Your task to perform on an android device: turn vacation reply on in the gmail app Image 0: 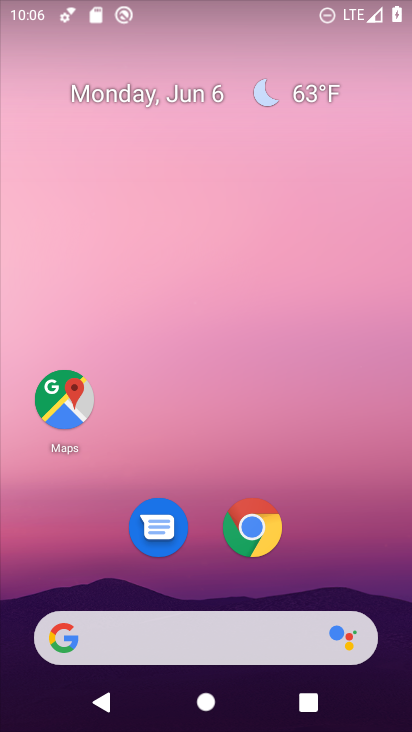
Step 0: drag from (374, 565) to (381, 151)
Your task to perform on an android device: turn vacation reply on in the gmail app Image 1: 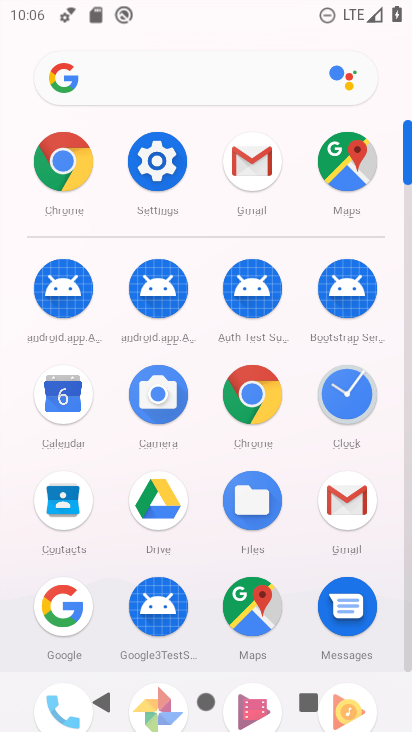
Step 1: click (365, 506)
Your task to perform on an android device: turn vacation reply on in the gmail app Image 2: 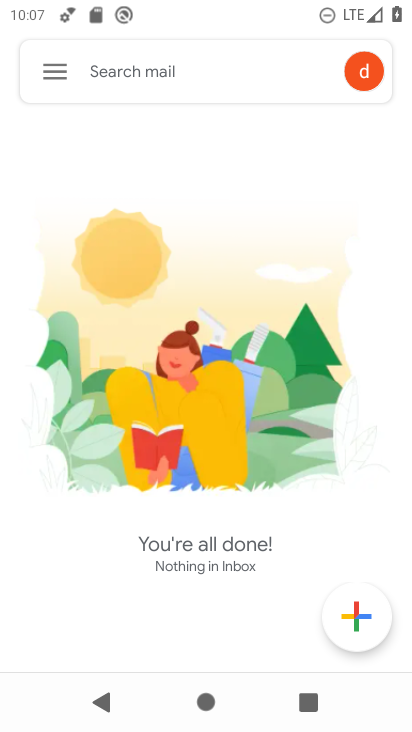
Step 2: click (62, 83)
Your task to perform on an android device: turn vacation reply on in the gmail app Image 3: 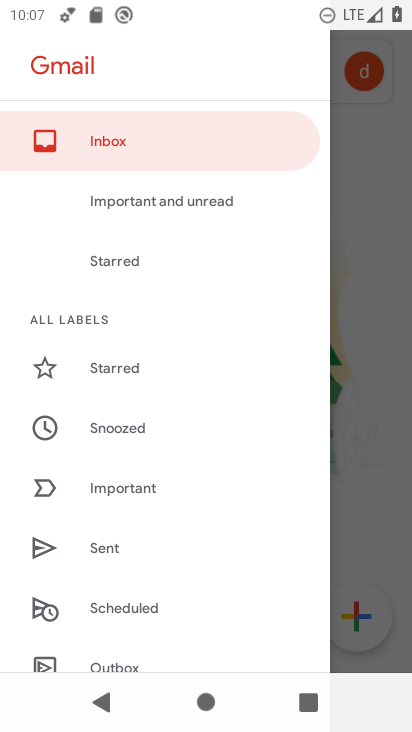
Step 3: drag from (282, 360) to (285, 258)
Your task to perform on an android device: turn vacation reply on in the gmail app Image 4: 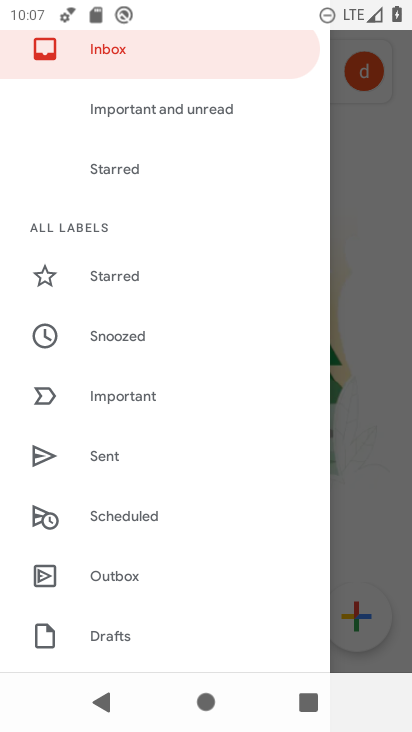
Step 4: drag from (277, 420) to (245, 299)
Your task to perform on an android device: turn vacation reply on in the gmail app Image 5: 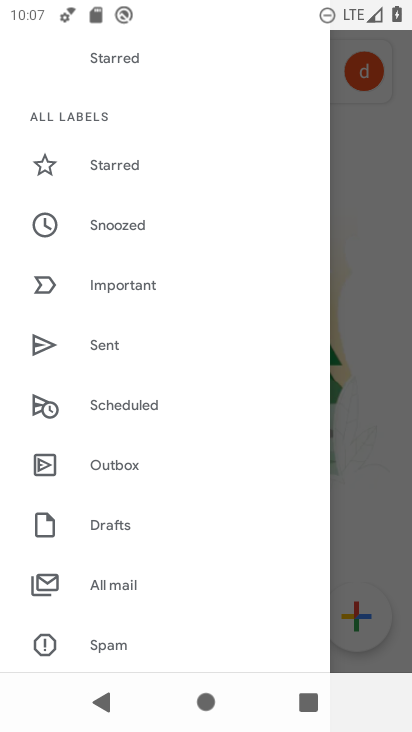
Step 5: drag from (254, 429) to (264, 317)
Your task to perform on an android device: turn vacation reply on in the gmail app Image 6: 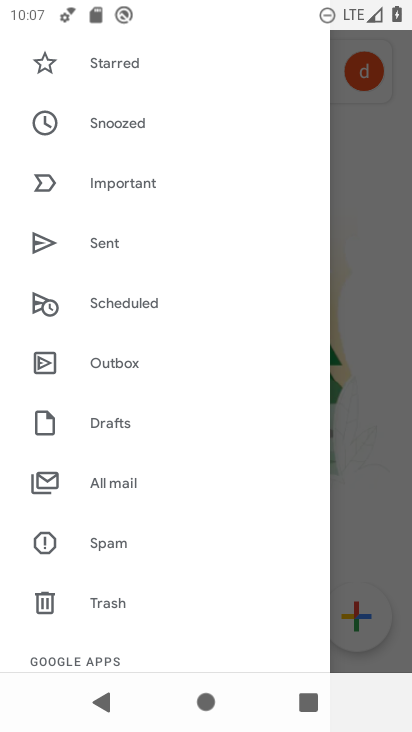
Step 6: drag from (265, 466) to (261, 337)
Your task to perform on an android device: turn vacation reply on in the gmail app Image 7: 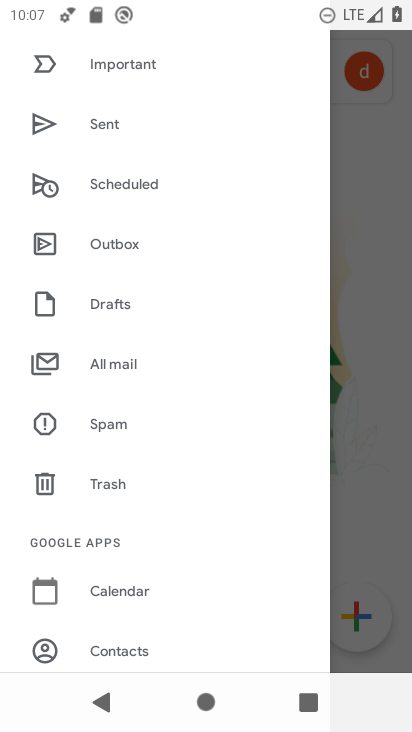
Step 7: drag from (245, 428) to (237, 242)
Your task to perform on an android device: turn vacation reply on in the gmail app Image 8: 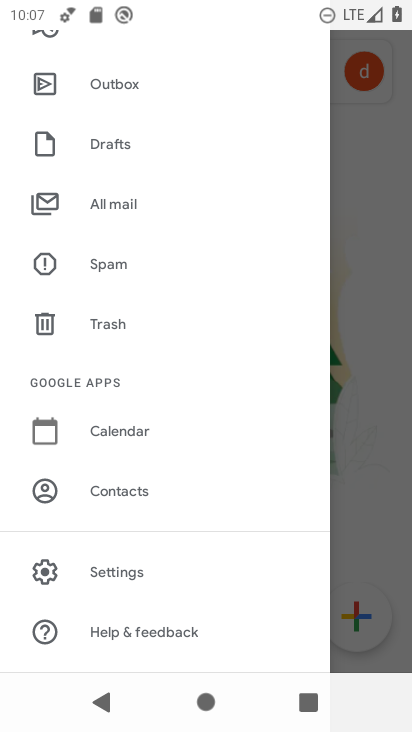
Step 8: click (158, 578)
Your task to perform on an android device: turn vacation reply on in the gmail app Image 9: 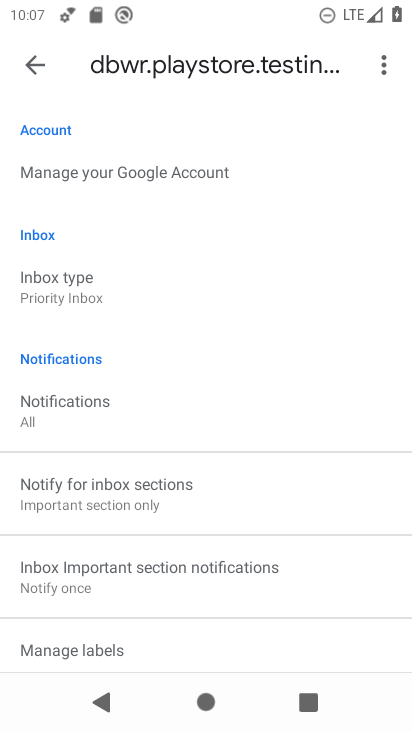
Step 9: drag from (313, 461) to (329, 227)
Your task to perform on an android device: turn vacation reply on in the gmail app Image 10: 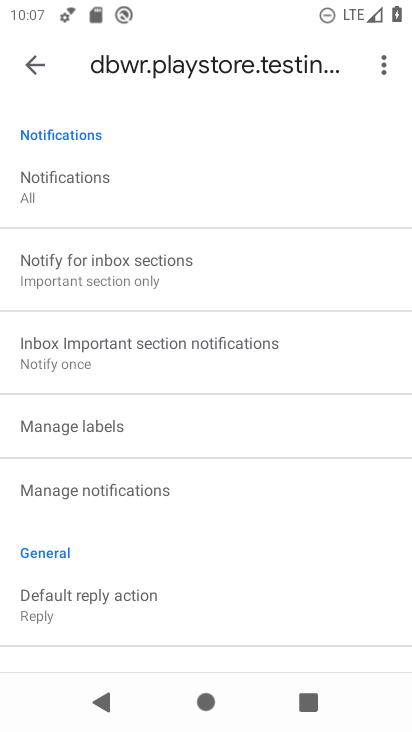
Step 10: drag from (314, 495) to (340, 344)
Your task to perform on an android device: turn vacation reply on in the gmail app Image 11: 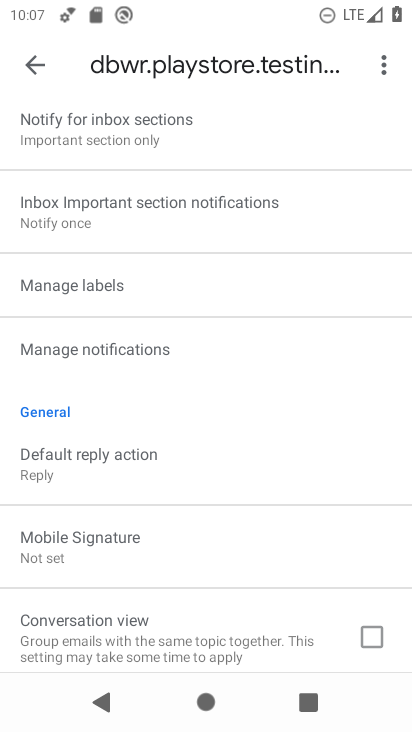
Step 11: drag from (318, 418) to (330, 310)
Your task to perform on an android device: turn vacation reply on in the gmail app Image 12: 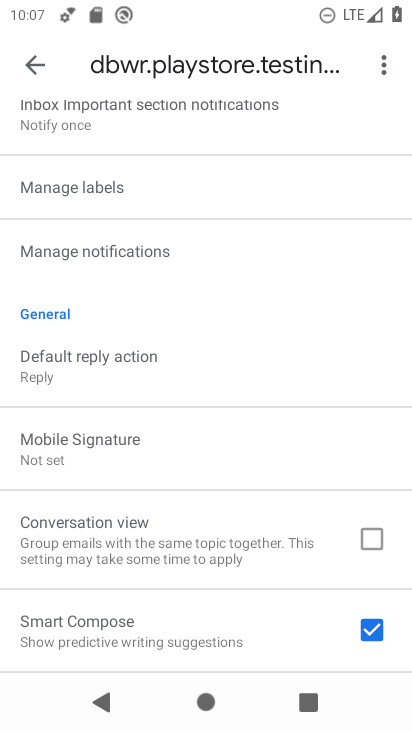
Step 12: drag from (318, 418) to (327, 328)
Your task to perform on an android device: turn vacation reply on in the gmail app Image 13: 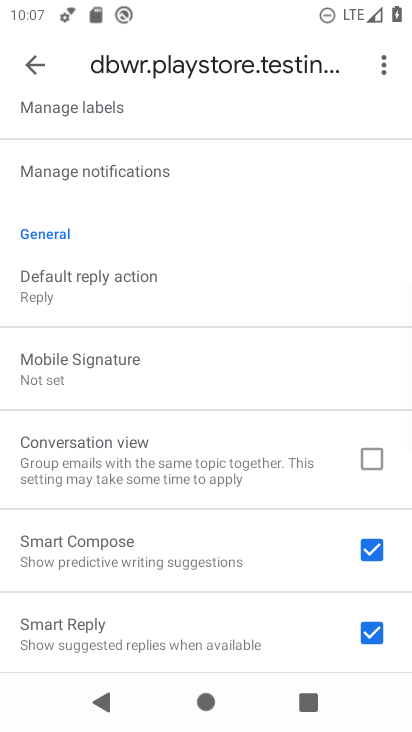
Step 13: drag from (276, 506) to (301, 381)
Your task to perform on an android device: turn vacation reply on in the gmail app Image 14: 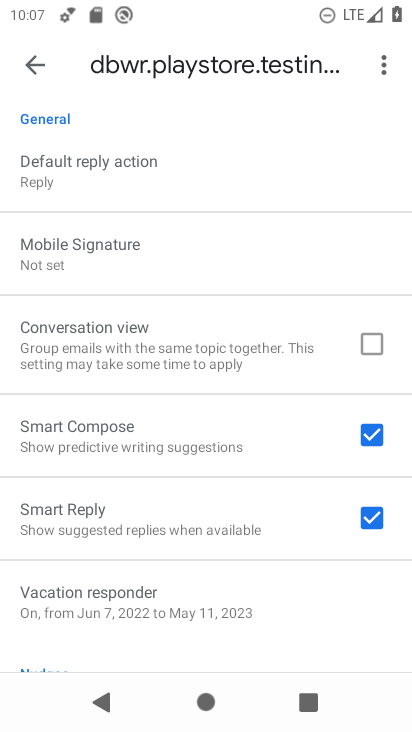
Step 14: drag from (270, 535) to (269, 374)
Your task to perform on an android device: turn vacation reply on in the gmail app Image 15: 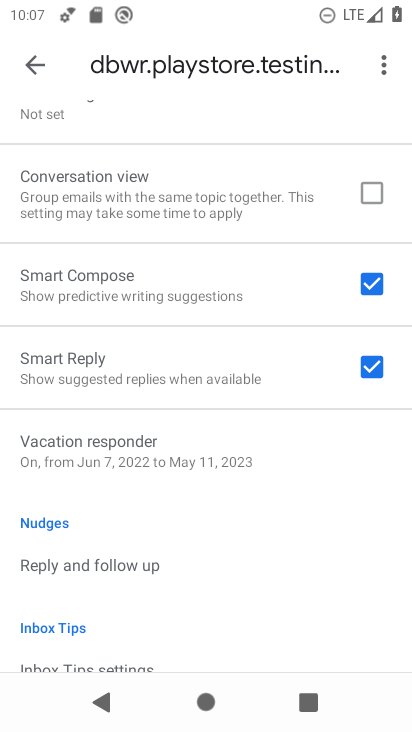
Step 15: click (217, 451)
Your task to perform on an android device: turn vacation reply on in the gmail app Image 16: 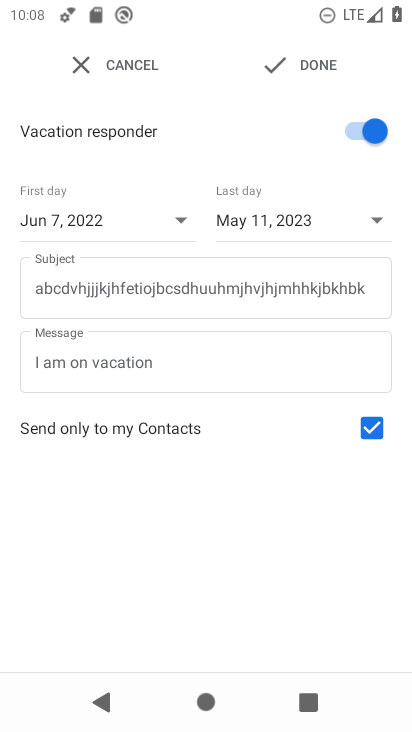
Step 16: task complete